Your task to perform on an android device: toggle data saver in the chrome app Image 0: 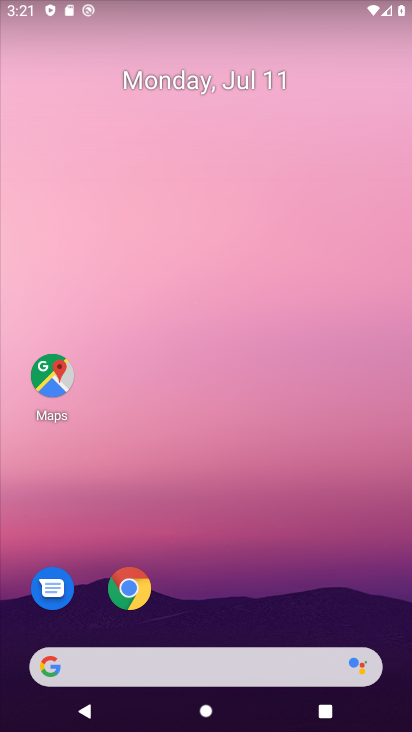
Step 0: drag from (372, 616) to (406, 95)
Your task to perform on an android device: toggle data saver in the chrome app Image 1: 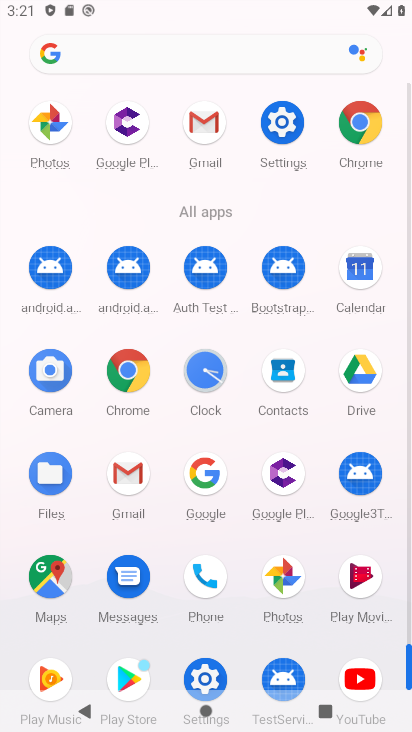
Step 1: click (132, 379)
Your task to perform on an android device: toggle data saver in the chrome app Image 2: 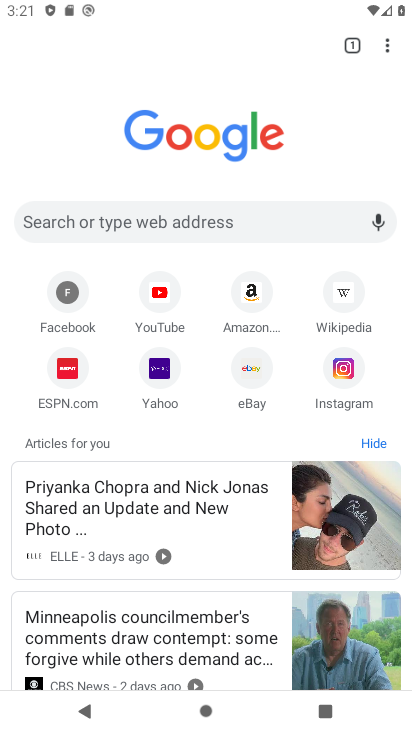
Step 2: click (388, 41)
Your task to perform on an android device: toggle data saver in the chrome app Image 3: 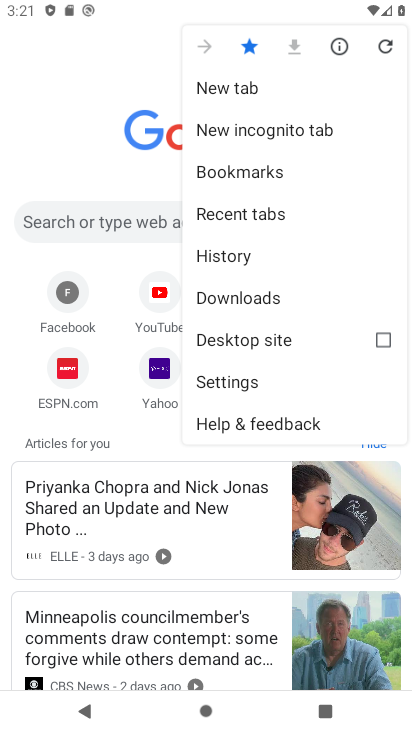
Step 3: click (264, 378)
Your task to perform on an android device: toggle data saver in the chrome app Image 4: 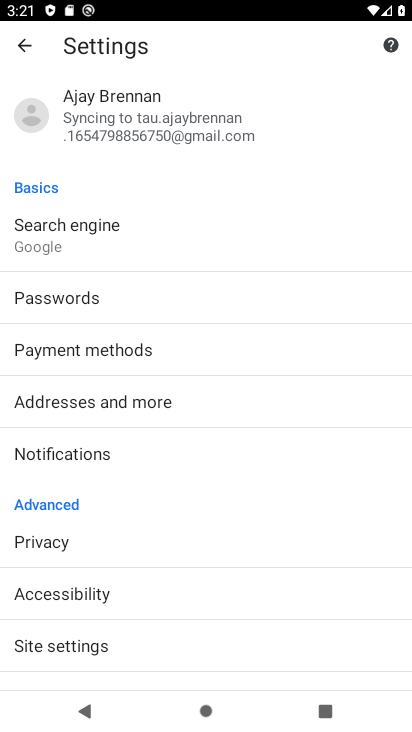
Step 4: drag from (271, 442) to (291, 329)
Your task to perform on an android device: toggle data saver in the chrome app Image 5: 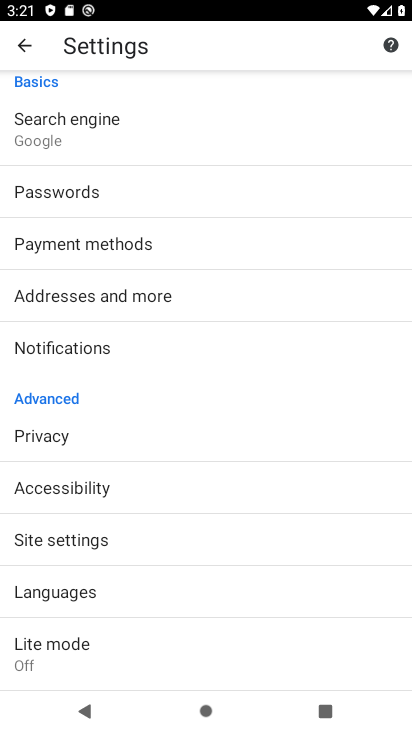
Step 5: drag from (302, 425) to (323, 314)
Your task to perform on an android device: toggle data saver in the chrome app Image 6: 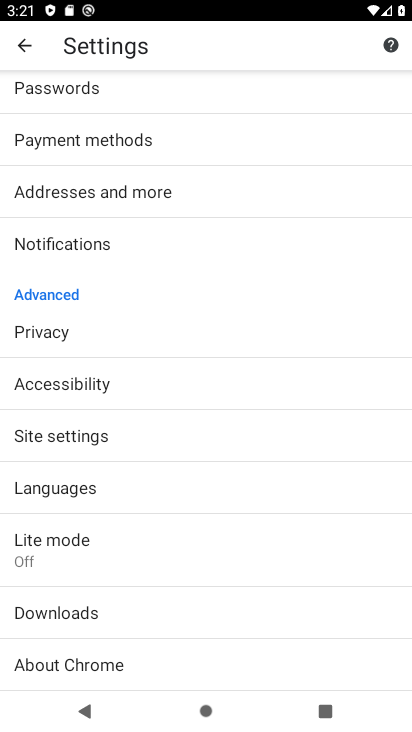
Step 6: drag from (312, 441) to (330, 292)
Your task to perform on an android device: toggle data saver in the chrome app Image 7: 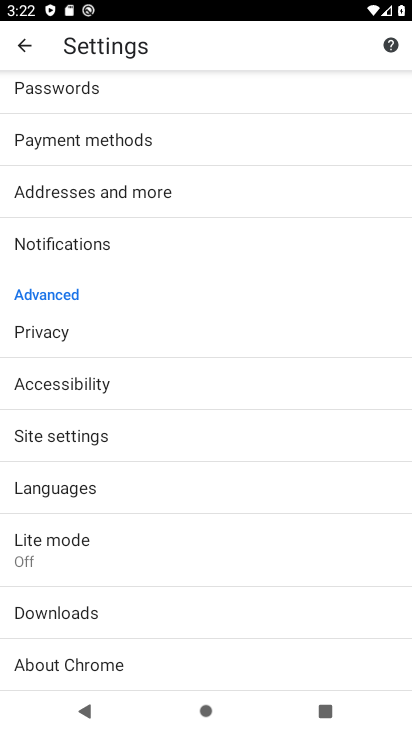
Step 7: click (240, 561)
Your task to perform on an android device: toggle data saver in the chrome app Image 8: 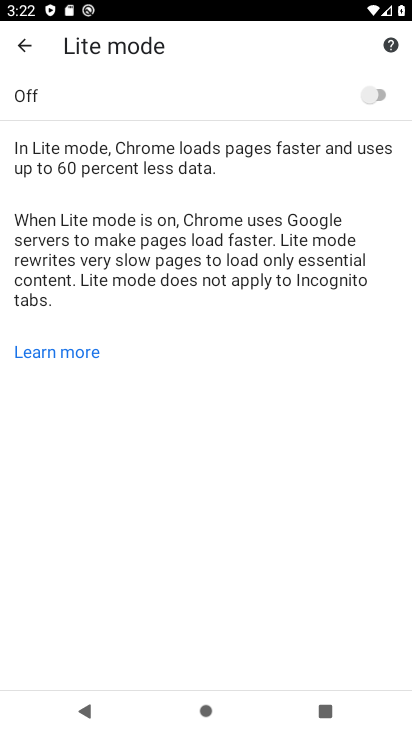
Step 8: click (375, 89)
Your task to perform on an android device: toggle data saver in the chrome app Image 9: 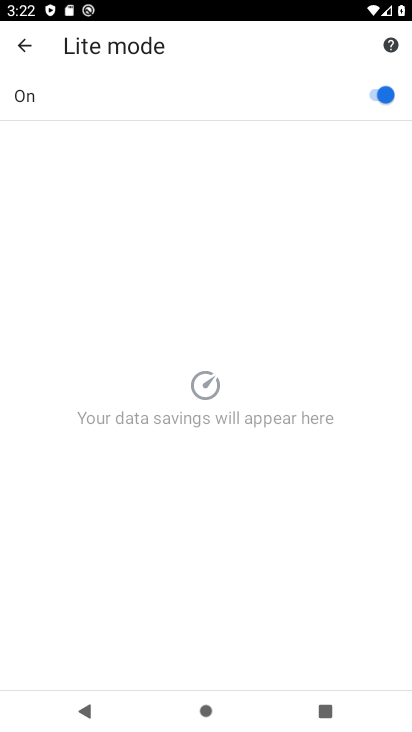
Step 9: task complete